Your task to perform on an android device: turn on translation in the chrome app Image 0: 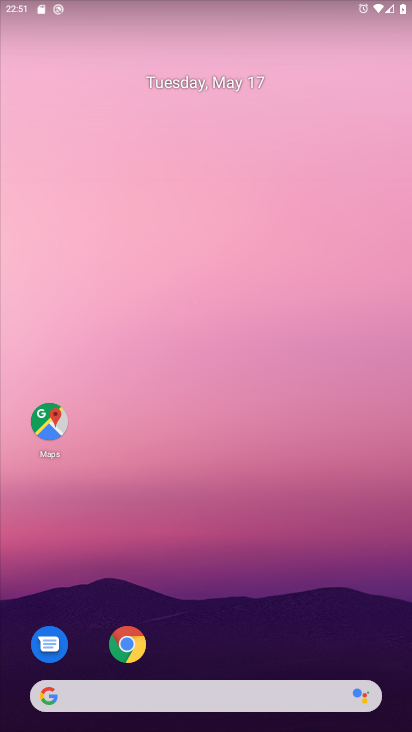
Step 0: click (123, 637)
Your task to perform on an android device: turn on translation in the chrome app Image 1: 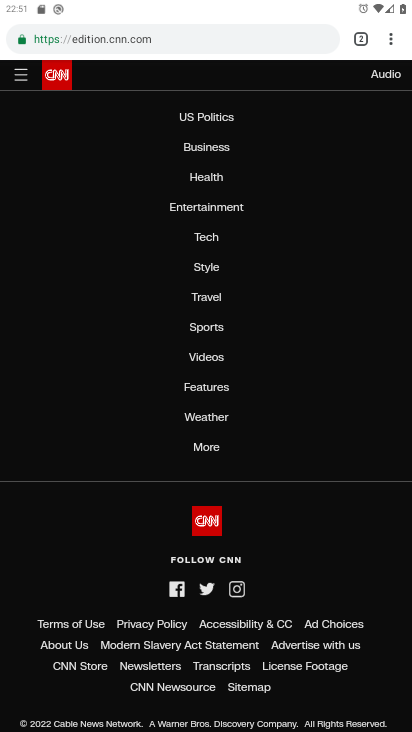
Step 1: click (385, 31)
Your task to perform on an android device: turn on translation in the chrome app Image 2: 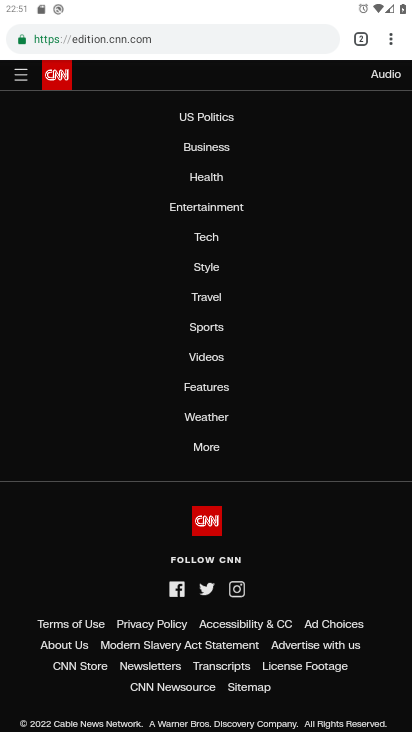
Step 2: click (388, 37)
Your task to perform on an android device: turn on translation in the chrome app Image 3: 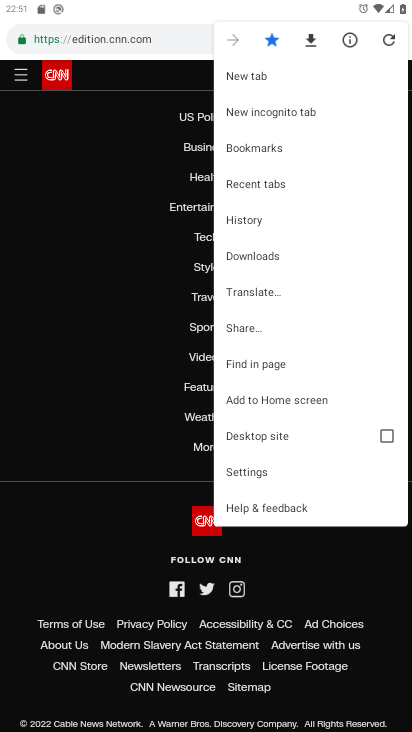
Step 3: click (269, 469)
Your task to perform on an android device: turn on translation in the chrome app Image 4: 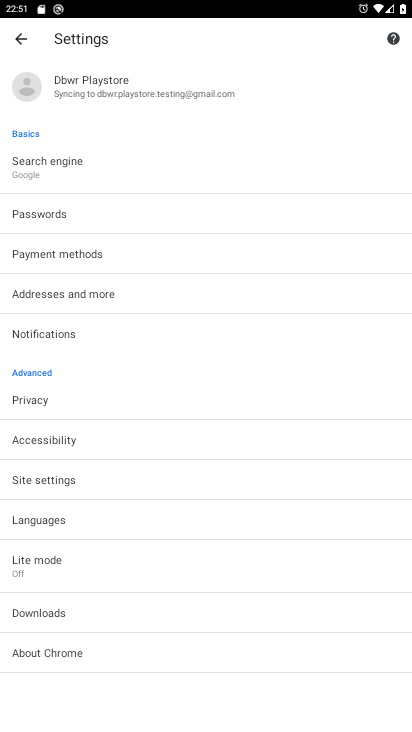
Step 4: click (83, 514)
Your task to perform on an android device: turn on translation in the chrome app Image 5: 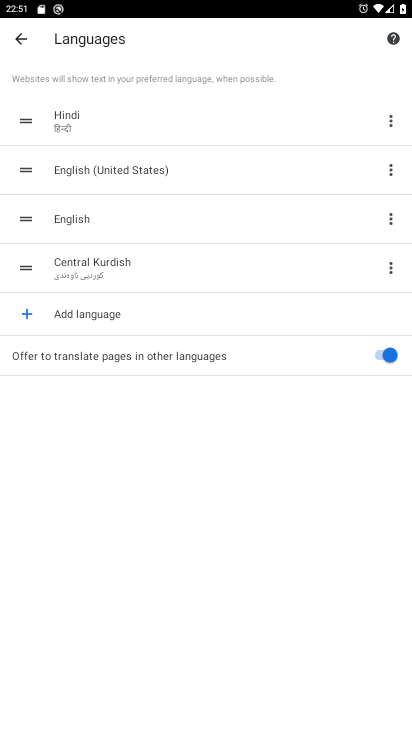
Step 5: task complete